Your task to perform on an android device: Open Google Image 0: 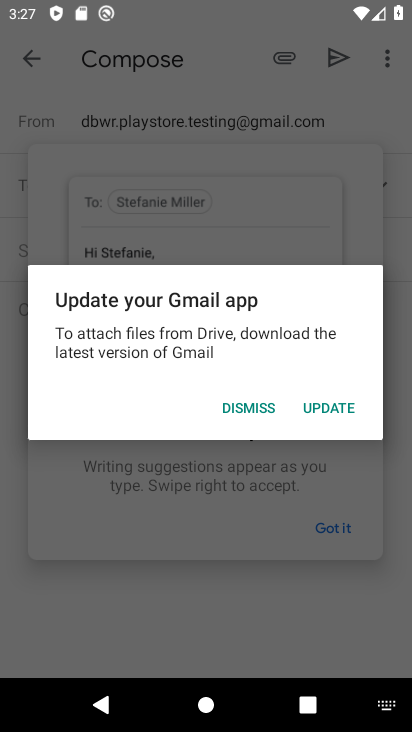
Step 0: press back button
Your task to perform on an android device: Open Google Image 1: 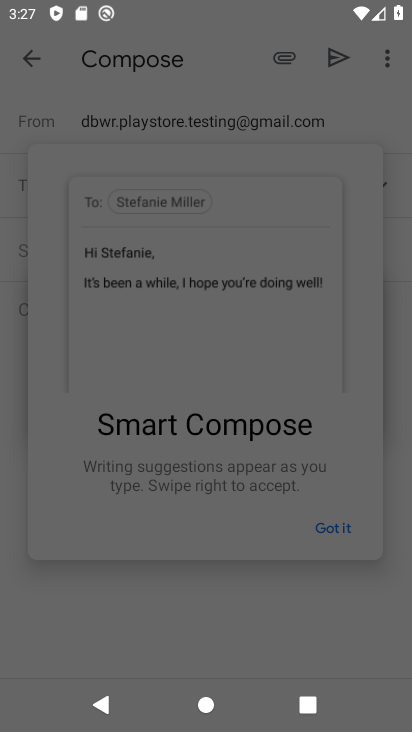
Step 1: press back button
Your task to perform on an android device: Open Google Image 2: 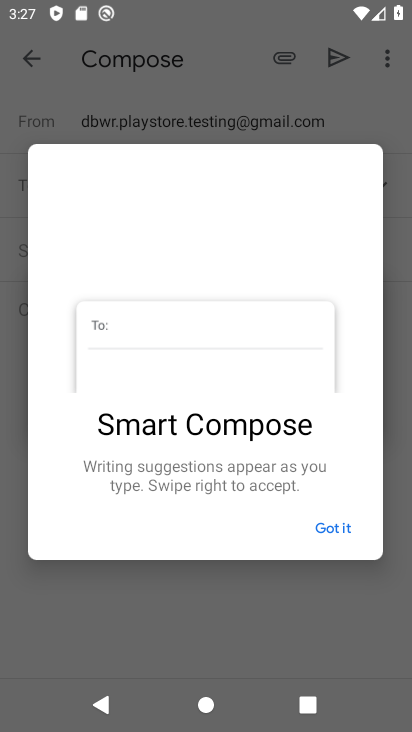
Step 2: press home button
Your task to perform on an android device: Open Google Image 3: 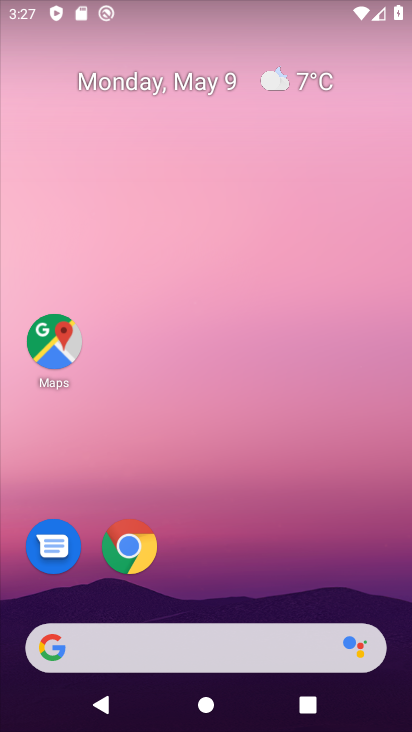
Step 3: drag from (192, 594) to (251, 198)
Your task to perform on an android device: Open Google Image 4: 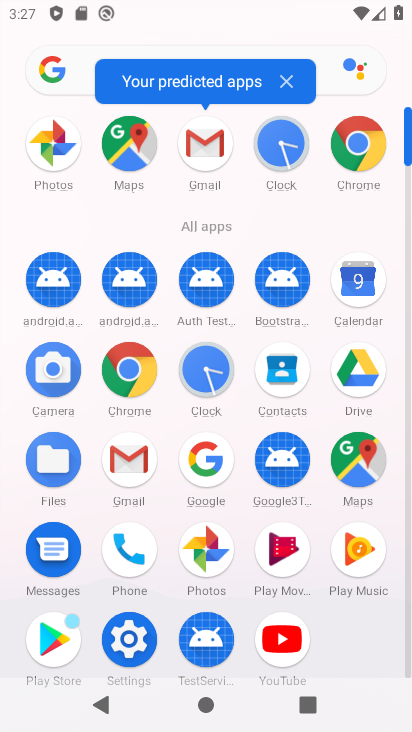
Step 4: click (206, 465)
Your task to perform on an android device: Open Google Image 5: 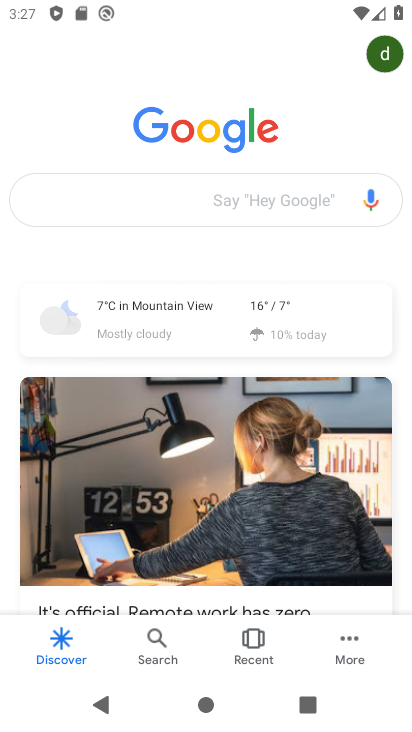
Step 5: task complete